Your task to perform on an android device: turn on airplane mode Image 0: 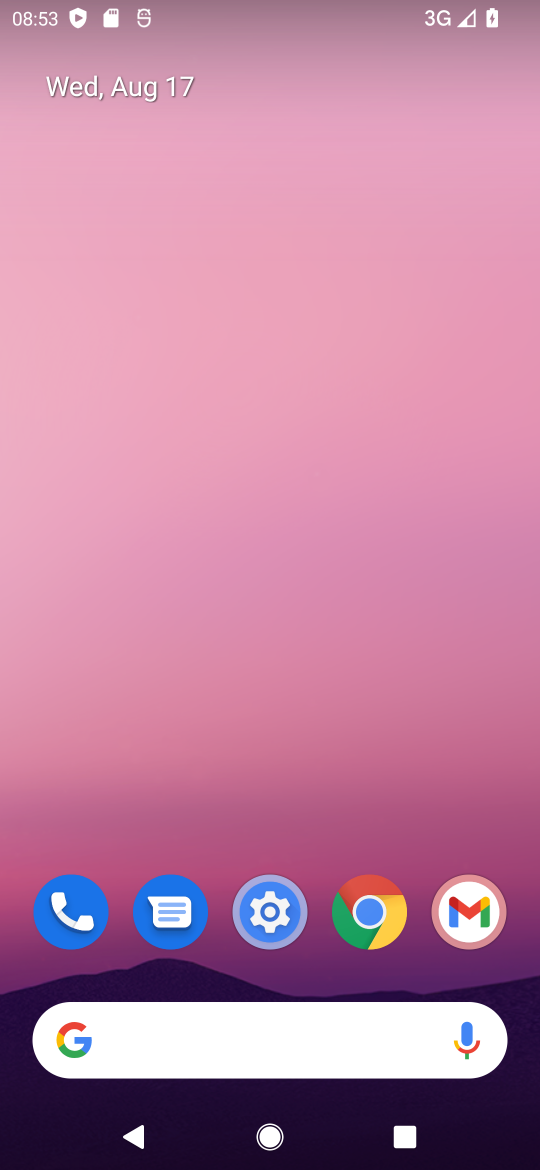
Step 0: click (271, 924)
Your task to perform on an android device: turn on airplane mode Image 1: 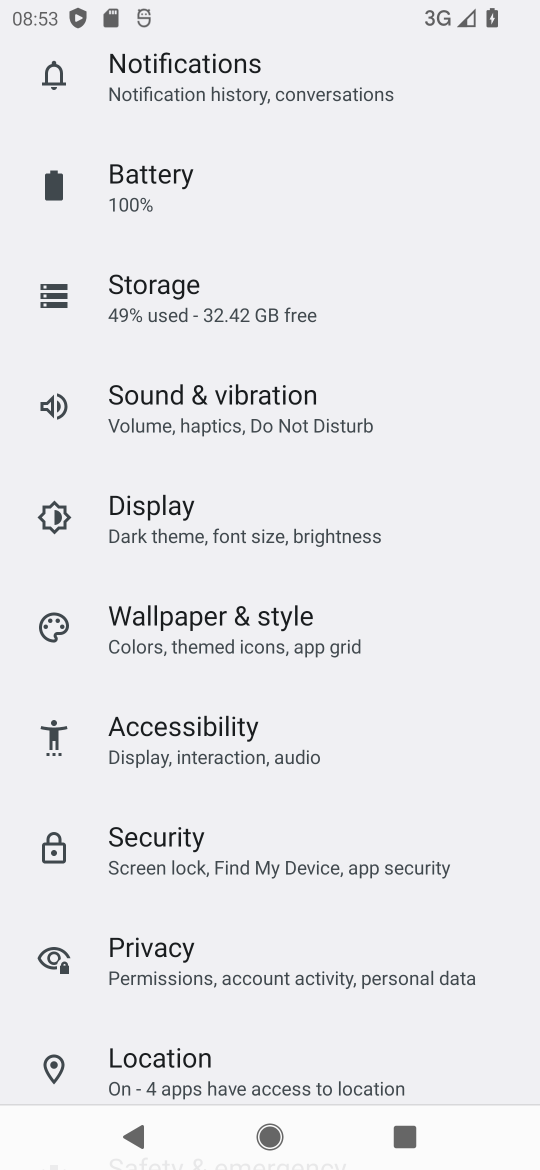
Step 1: drag from (300, 135) to (402, 950)
Your task to perform on an android device: turn on airplane mode Image 2: 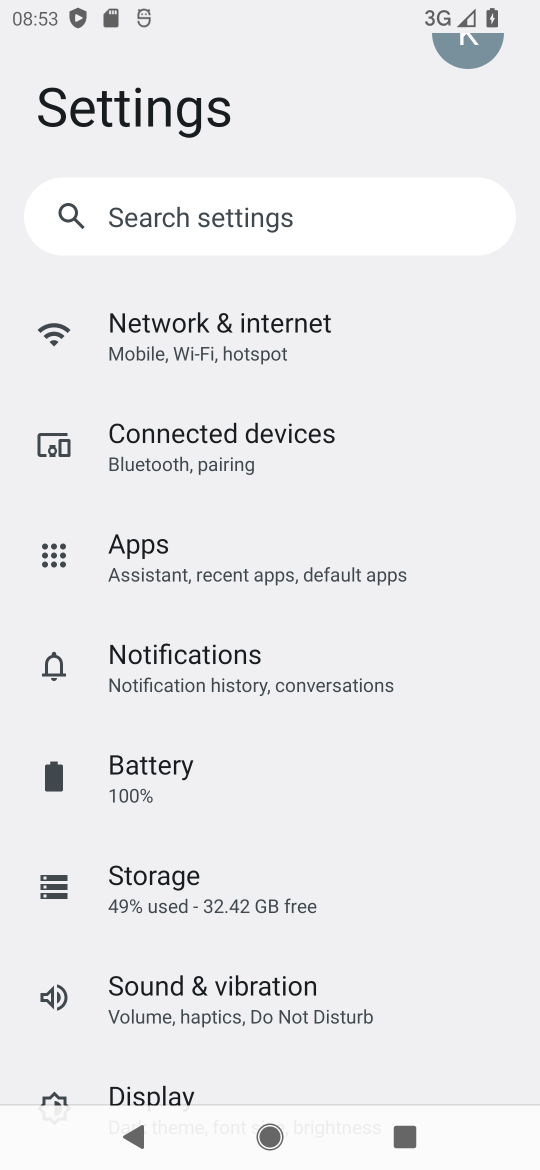
Step 2: click (180, 341)
Your task to perform on an android device: turn on airplane mode Image 3: 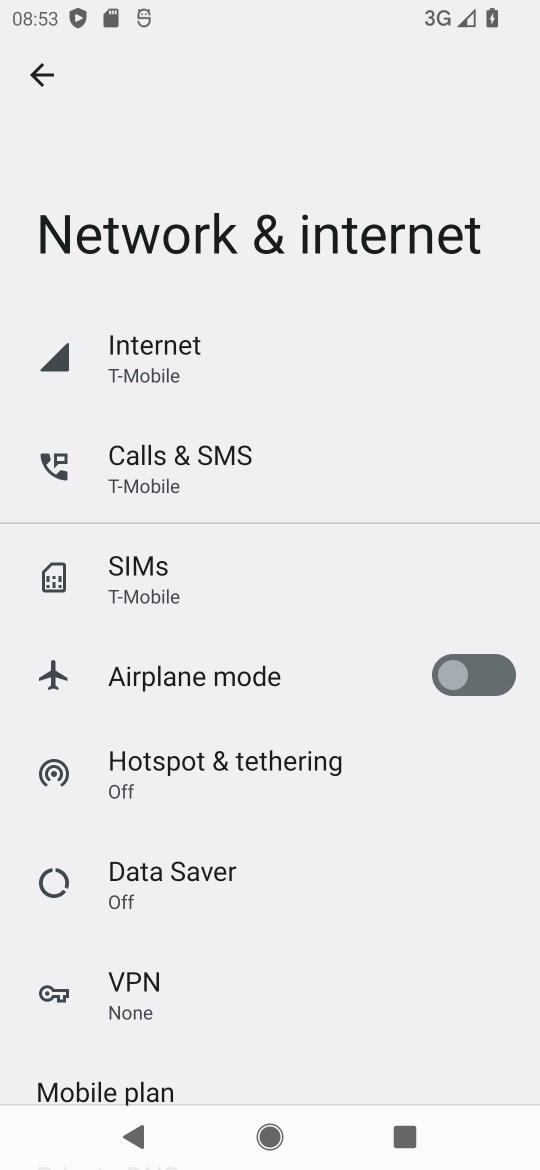
Step 3: click (481, 668)
Your task to perform on an android device: turn on airplane mode Image 4: 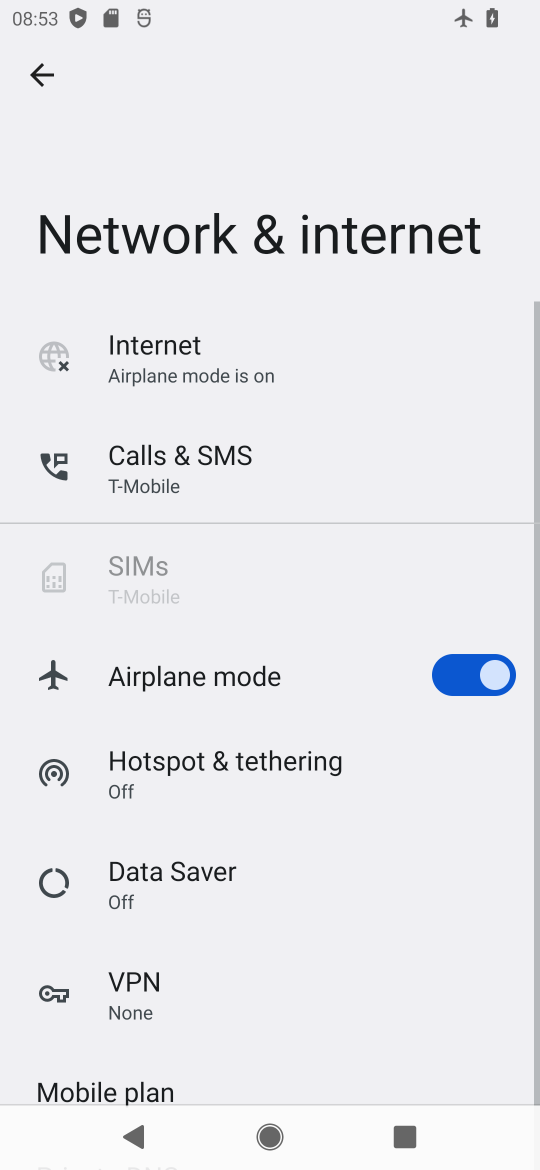
Step 4: task complete